Your task to perform on an android device: What is the recent news? Image 0: 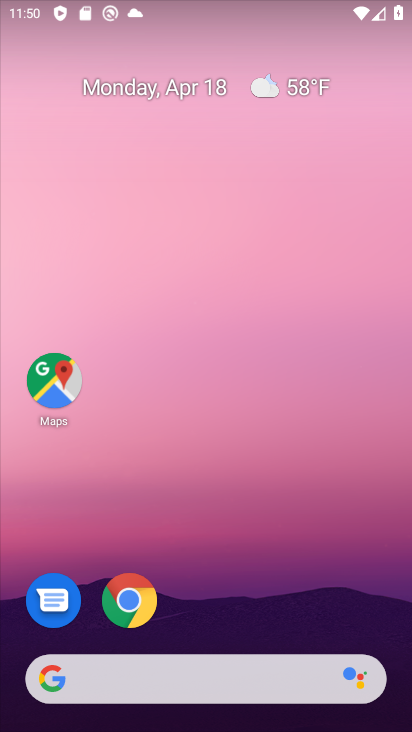
Step 0: drag from (255, 705) to (374, 194)
Your task to perform on an android device: What is the recent news? Image 1: 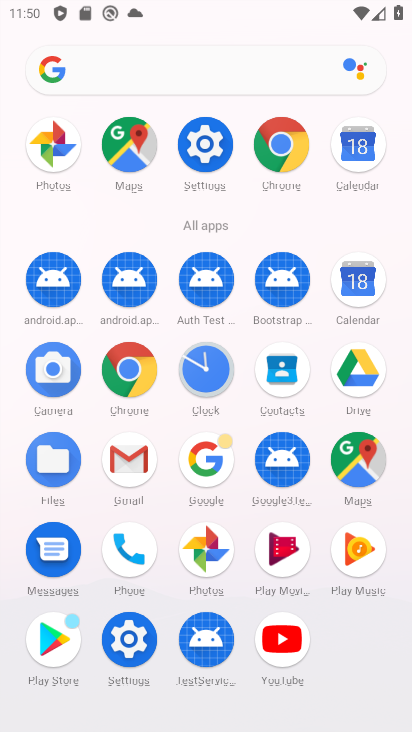
Step 1: click (85, 77)
Your task to perform on an android device: What is the recent news? Image 2: 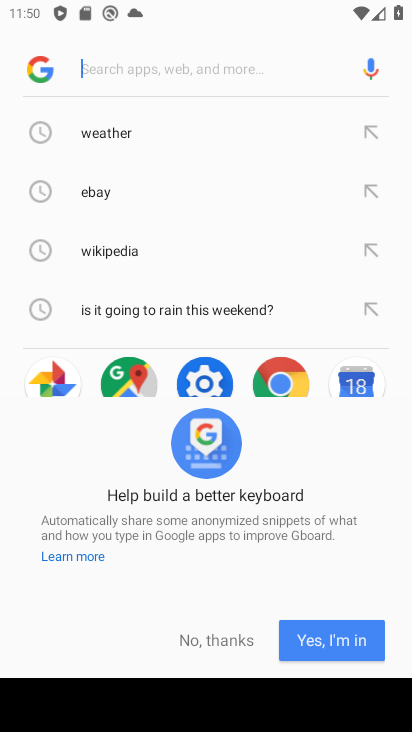
Step 2: click (47, 73)
Your task to perform on an android device: What is the recent news? Image 3: 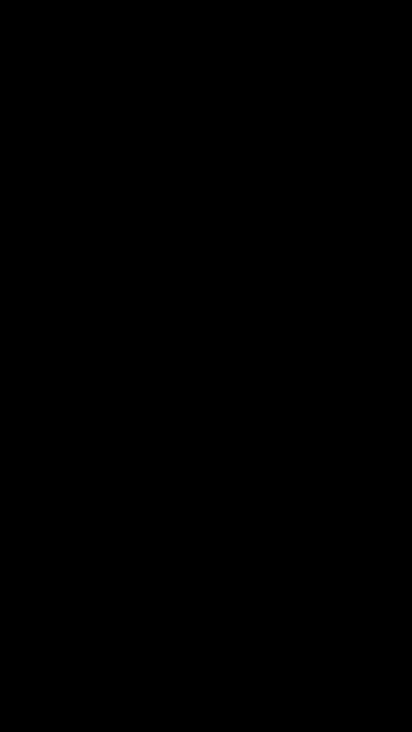
Step 3: task complete